Your task to perform on an android device: Show me recent news Image 0: 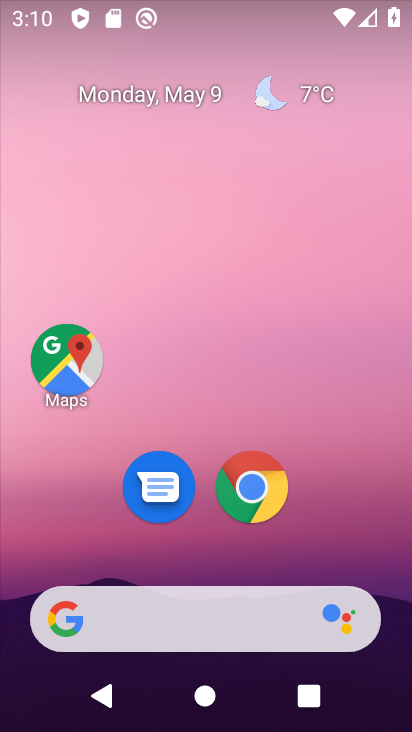
Step 0: drag from (327, 570) to (286, 48)
Your task to perform on an android device: Show me recent news Image 1: 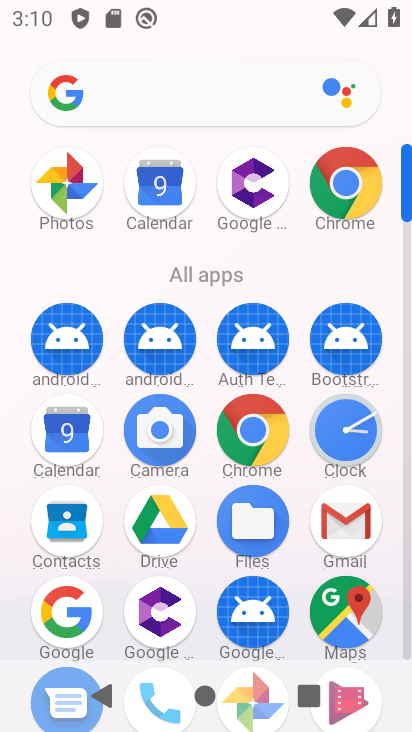
Step 1: click (248, 431)
Your task to perform on an android device: Show me recent news Image 2: 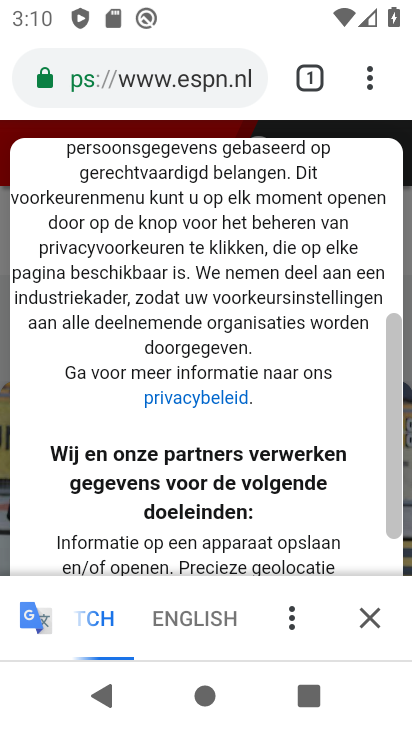
Step 2: click (222, 81)
Your task to perform on an android device: Show me recent news Image 3: 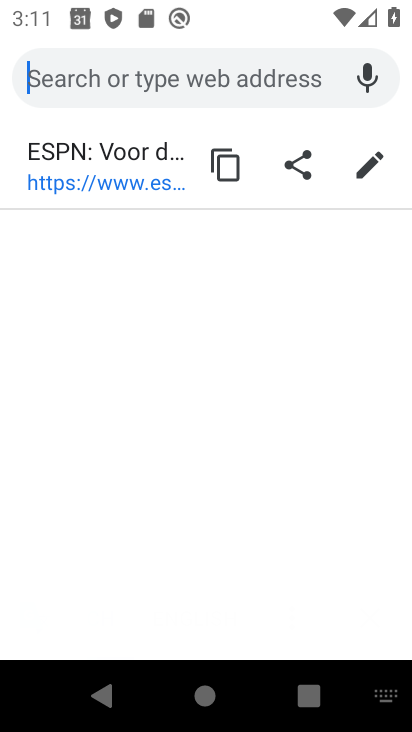
Step 3: type "recent news"
Your task to perform on an android device: Show me recent news Image 4: 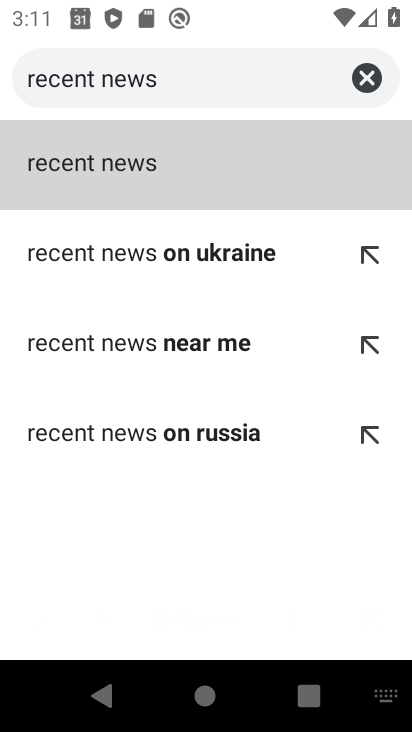
Step 4: click (163, 157)
Your task to perform on an android device: Show me recent news Image 5: 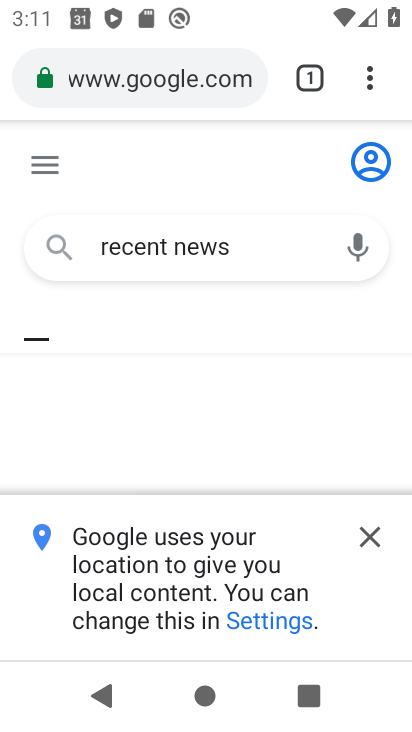
Step 5: click (369, 538)
Your task to perform on an android device: Show me recent news Image 6: 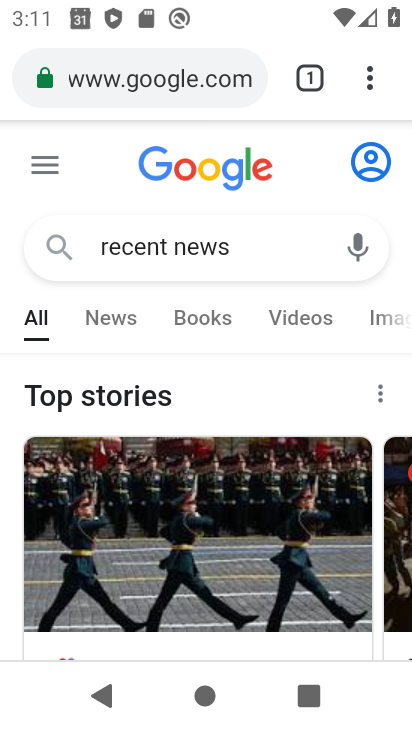
Step 6: task complete